Your task to perform on an android device: Go to privacy settings Image 0: 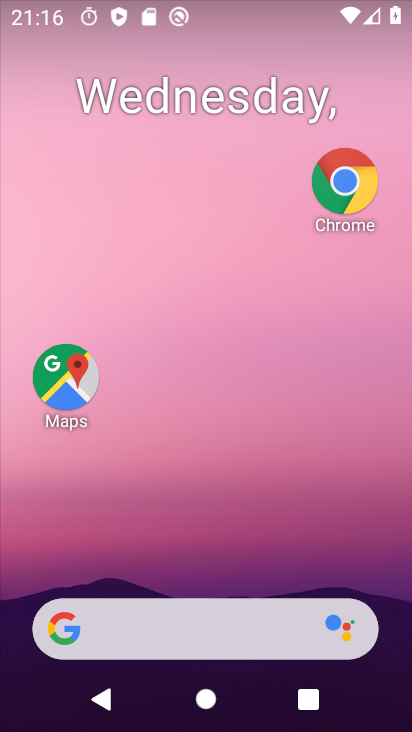
Step 0: drag from (238, 652) to (336, 313)
Your task to perform on an android device: Go to privacy settings Image 1: 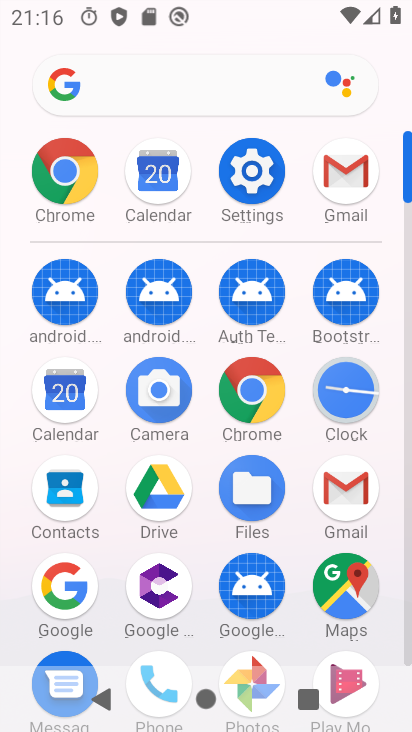
Step 1: click (247, 187)
Your task to perform on an android device: Go to privacy settings Image 2: 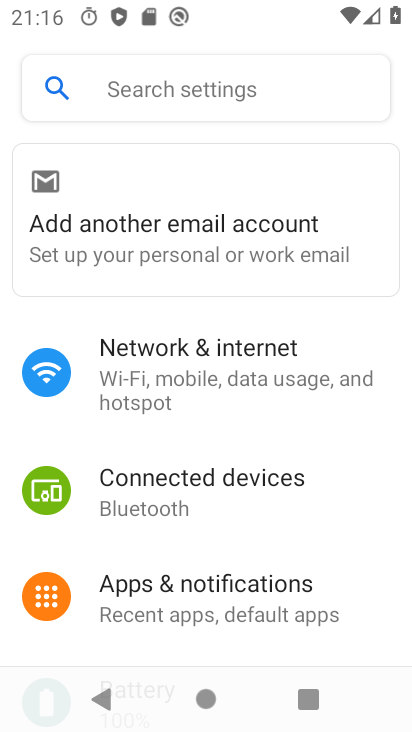
Step 2: drag from (148, 518) to (244, 280)
Your task to perform on an android device: Go to privacy settings Image 3: 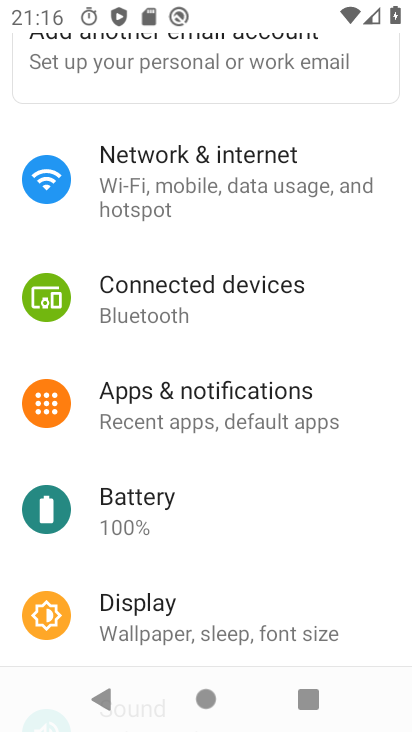
Step 3: drag from (176, 465) to (235, 348)
Your task to perform on an android device: Go to privacy settings Image 4: 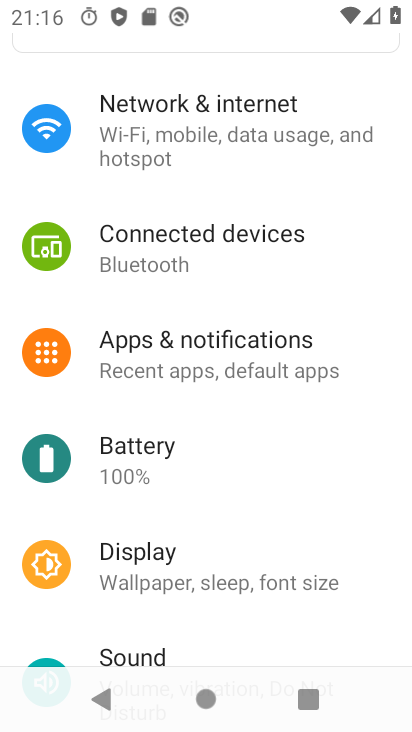
Step 4: drag from (149, 555) to (180, 358)
Your task to perform on an android device: Go to privacy settings Image 5: 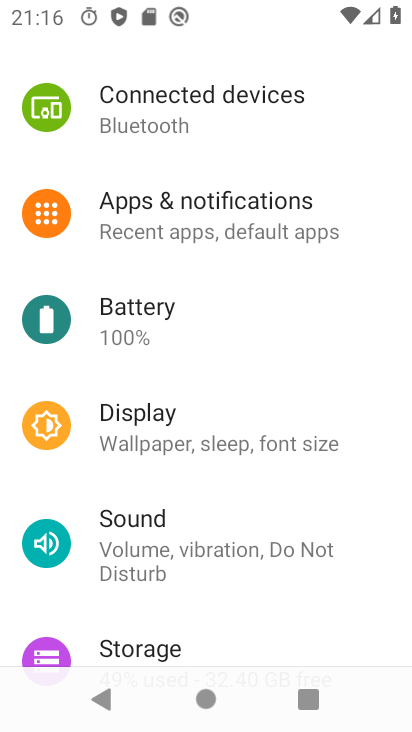
Step 5: drag from (141, 573) to (211, 317)
Your task to perform on an android device: Go to privacy settings Image 6: 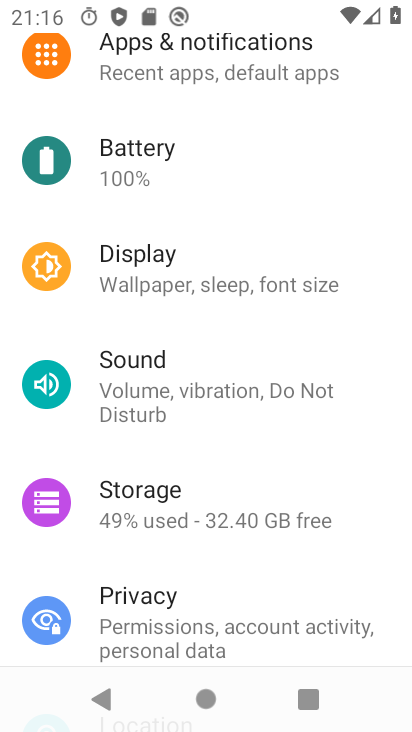
Step 6: click (147, 616)
Your task to perform on an android device: Go to privacy settings Image 7: 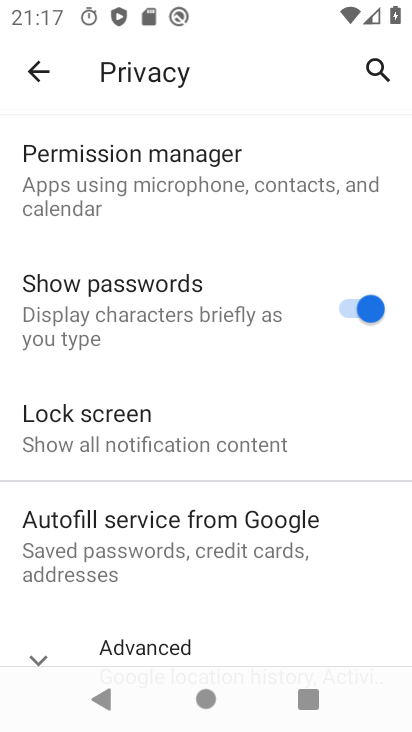
Step 7: drag from (163, 623) to (225, 448)
Your task to perform on an android device: Go to privacy settings Image 8: 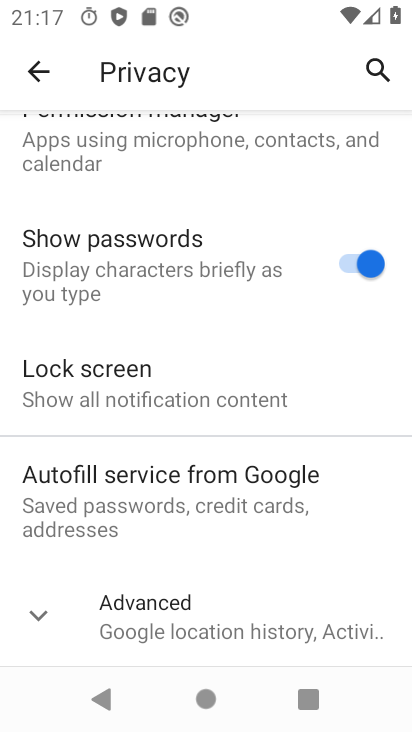
Step 8: click (78, 601)
Your task to perform on an android device: Go to privacy settings Image 9: 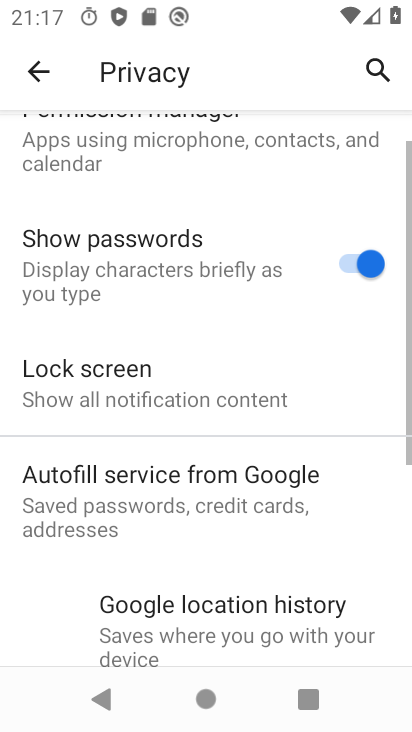
Step 9: task complete